Your task to perform on an android device: What is the recent news? Image 0: 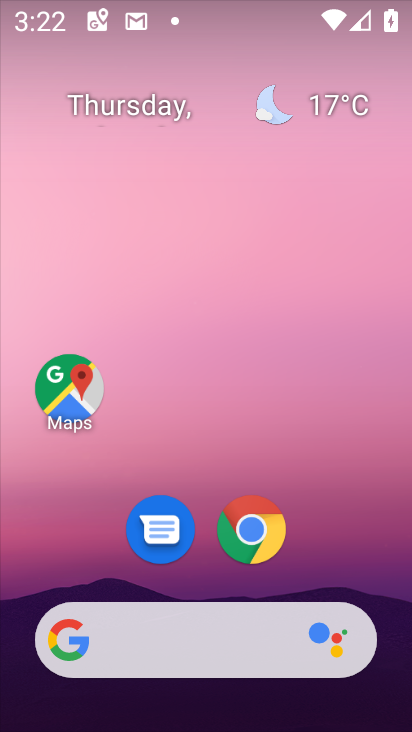
Step 0: drag from (147, 602) to (153, 112)
Your task to perform on an android device: What is the recent news? Image 1: 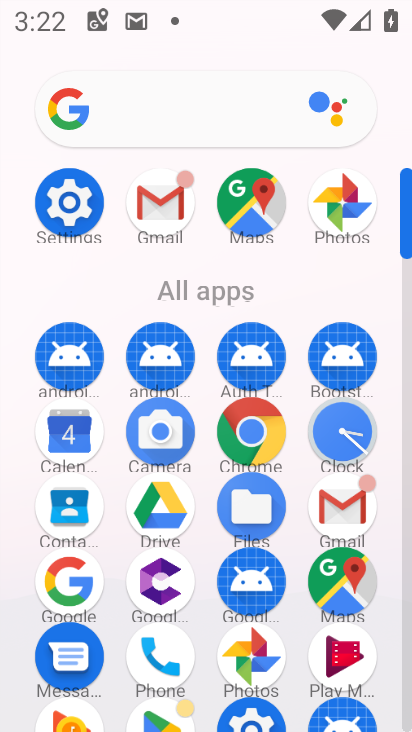
Step 1: click (73, 575)
Your task to perform on an android device: What is the recent news? Image 2: 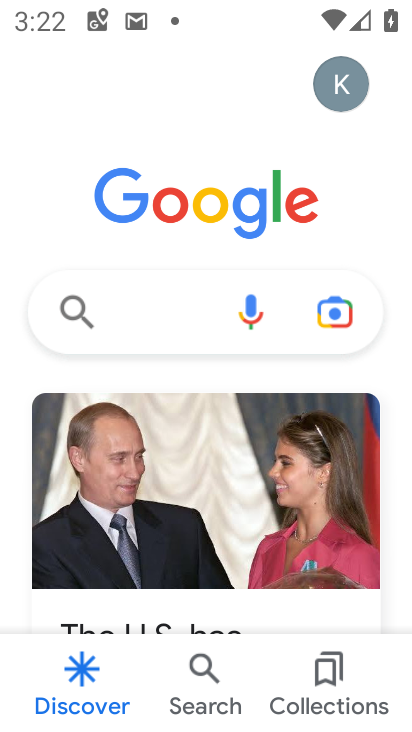
Step 2: click (159, 319)
Your task to perform on an android device: What is the recent news? Image 3: 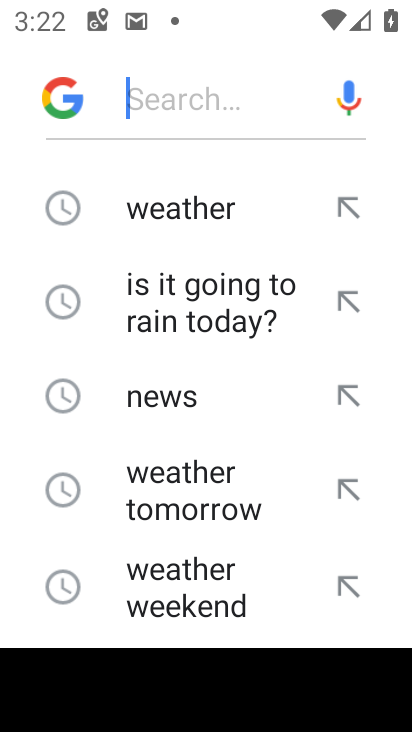
Step 3: drag from (192, 600) to (152, 211)
Your task to perform on an android device: What is the recent news? Image 4: 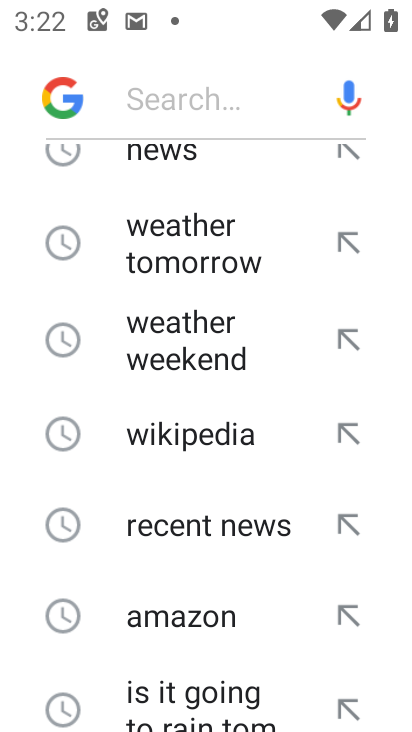
Step 4: click (201, 533)
Your task to perform on an android device: What is the recent news? Image 5: 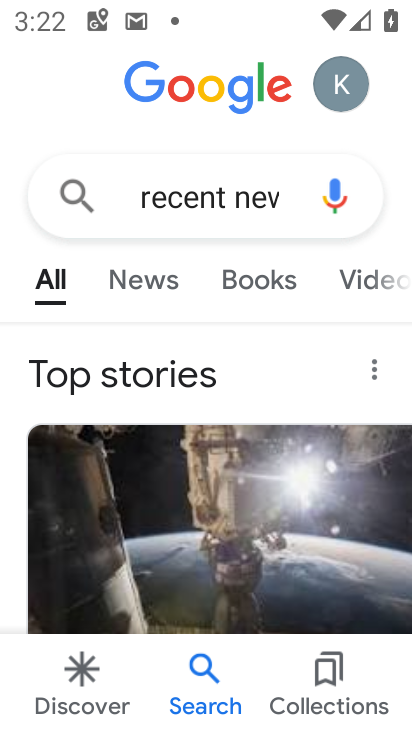
Step 5: task complete